Your task to perform on an android device: set default search engine in the chrome app Image 0: 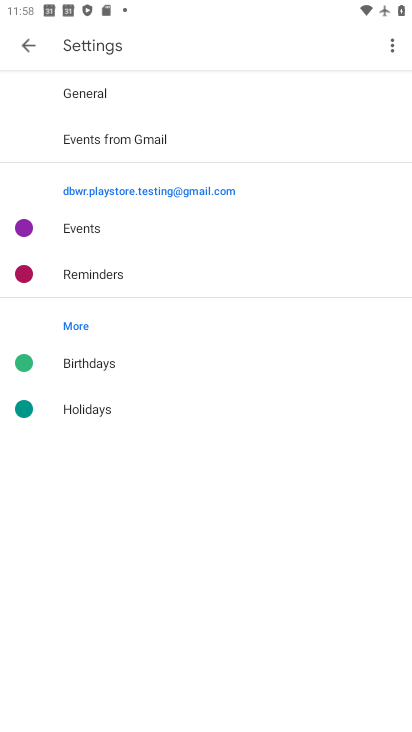
Step 0: press home button
Your task to perform on an android device: set default search engine in the chrome app Image 1: 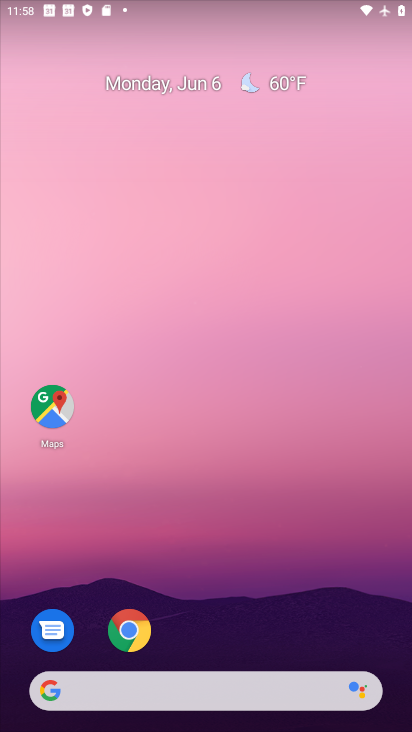
Step 1: drag from (372, 634) to (215, 52)
Your task to perform on an android device: set default search engine in the chrome app Image 2: 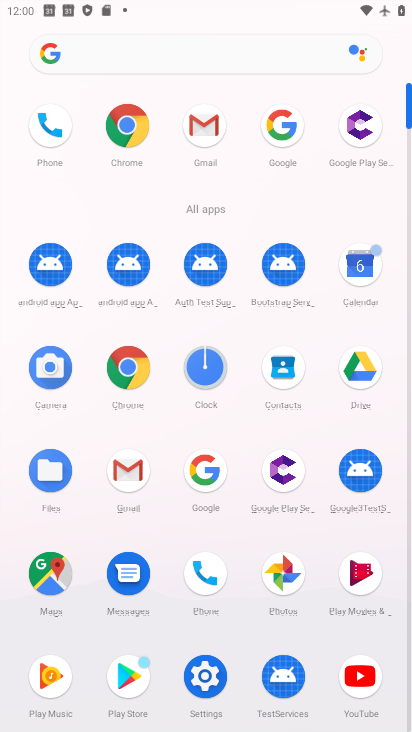
Step 2: click (125, 376)
Your task to perform on an android device: set default search engine in the chrome app Image 3: 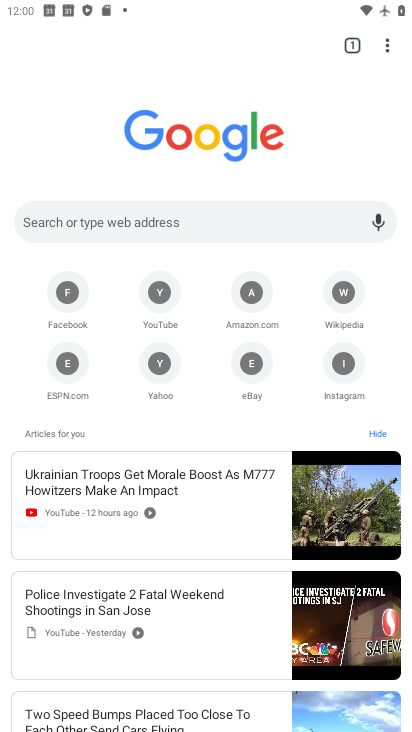
Step 3: click (387, 44)
Your task to perform on an android device: set default search engine in the chrome app Image 4: 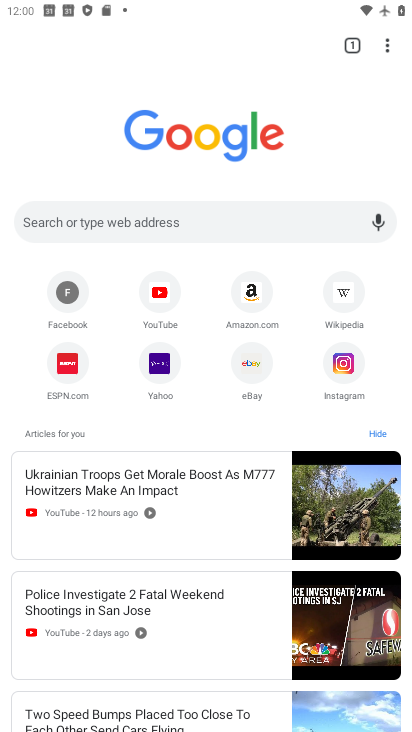
Step 4: click (388, 43)
Your task to perform on an android device: set default search engine in the chrome app Image 5: 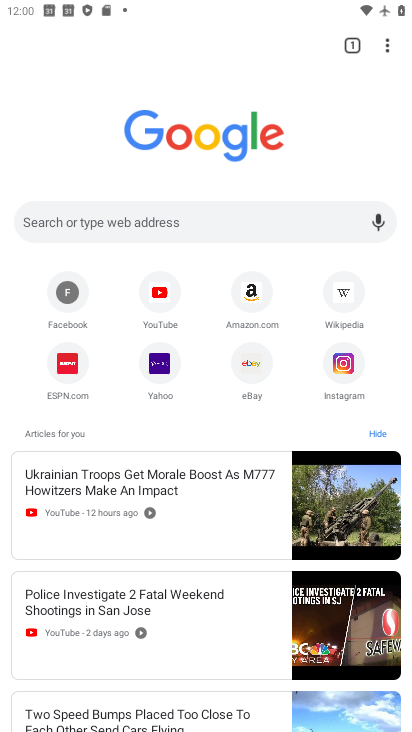
Step 5: click (393, 40)
Your task to perform on an android device: set default search engine in the chrome app Image 6: 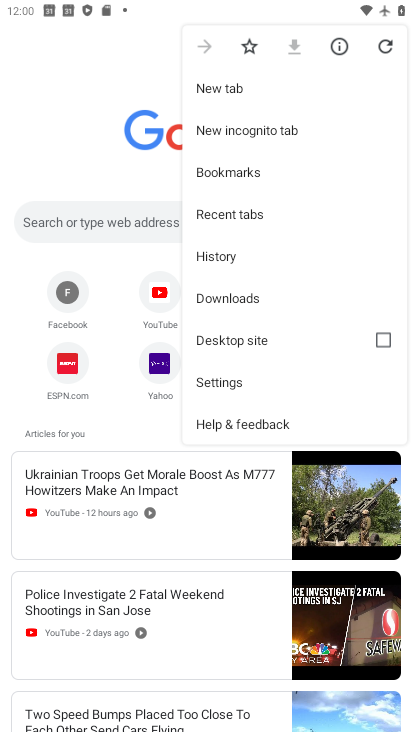
Step 6: click (250, 392)
Your task to perform on an android device: set default search engine in the chrome app Image 7: 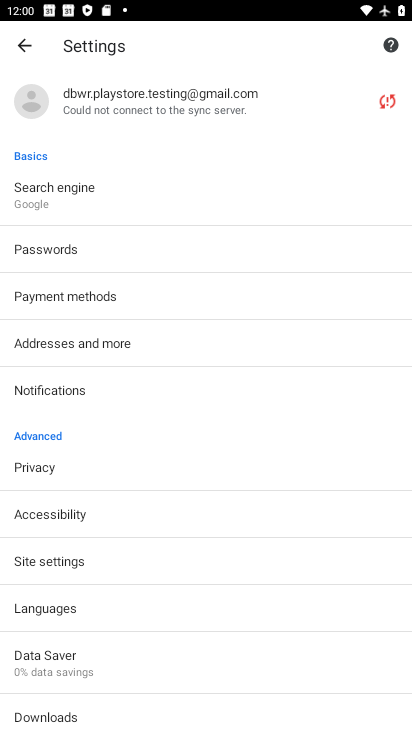
Step 7: click (64, 221)
Your task to perform on an android device: set default search engine in the chrome app Image 8: 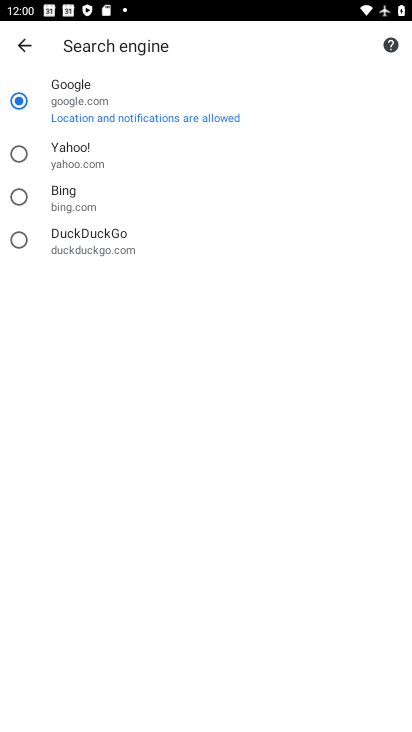
Step 8: click (93, 200)
Your task to perform on an android device: set default search engine in the chrome app Image 9: 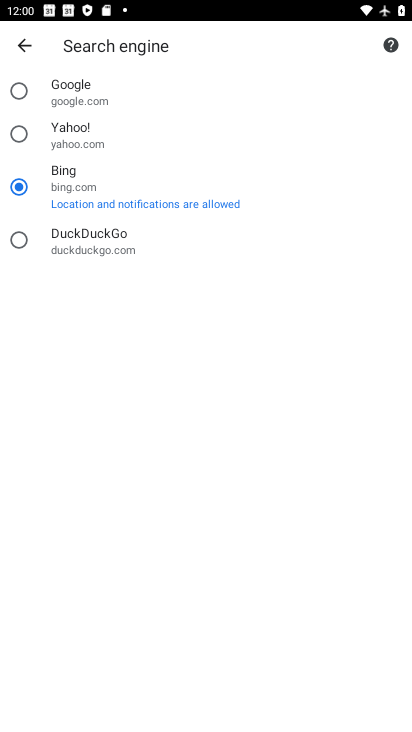
Step 9: task complete